Your task to perform on an android device: turn on the 24-hour format for clock Image 0: 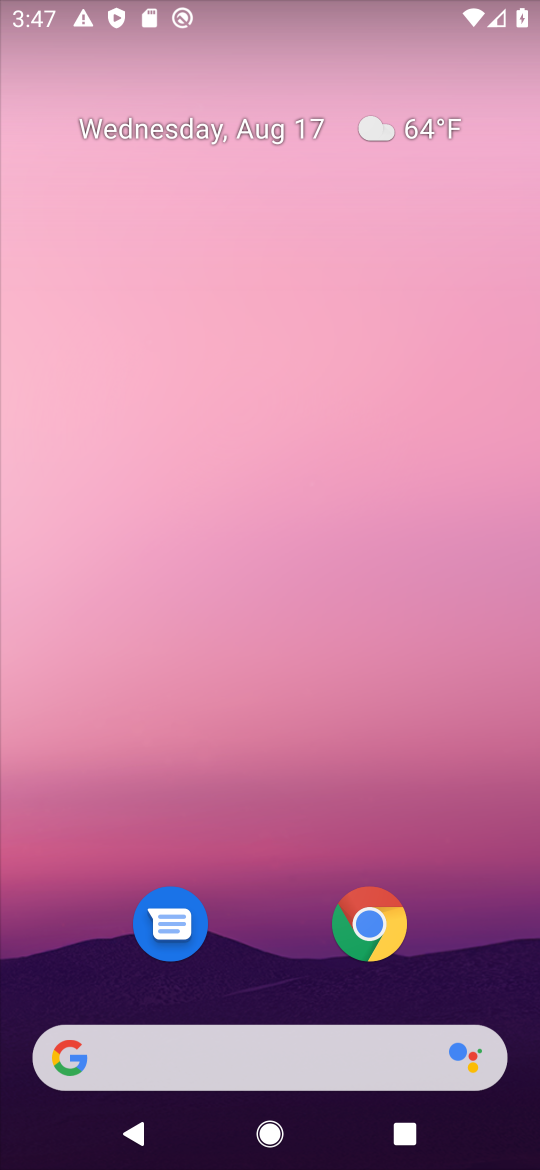
Step 0: drag from (248, 998) to (168, 195)
Your task to perform on an android device: turn on the 24-hour format for clock Image 1: 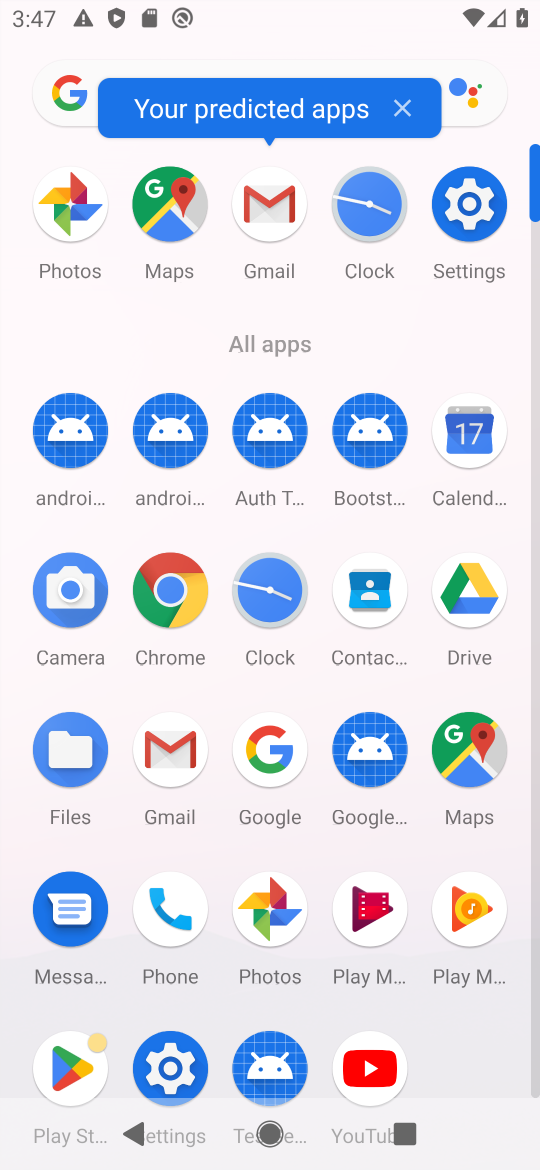
Step 1: click (277, 577)
Your task to perform on an android device: turn on the 24-hour format for clock Image 2: 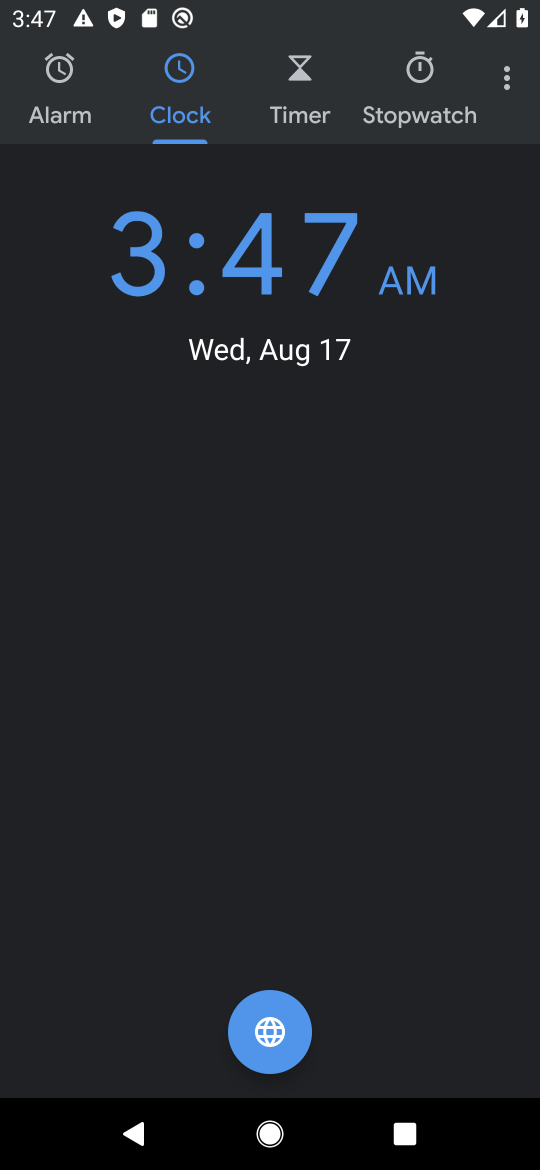
Step 2: click (500, 72)
Your task to perform on an android device: turn on the 24-hour format for clock Image 3: 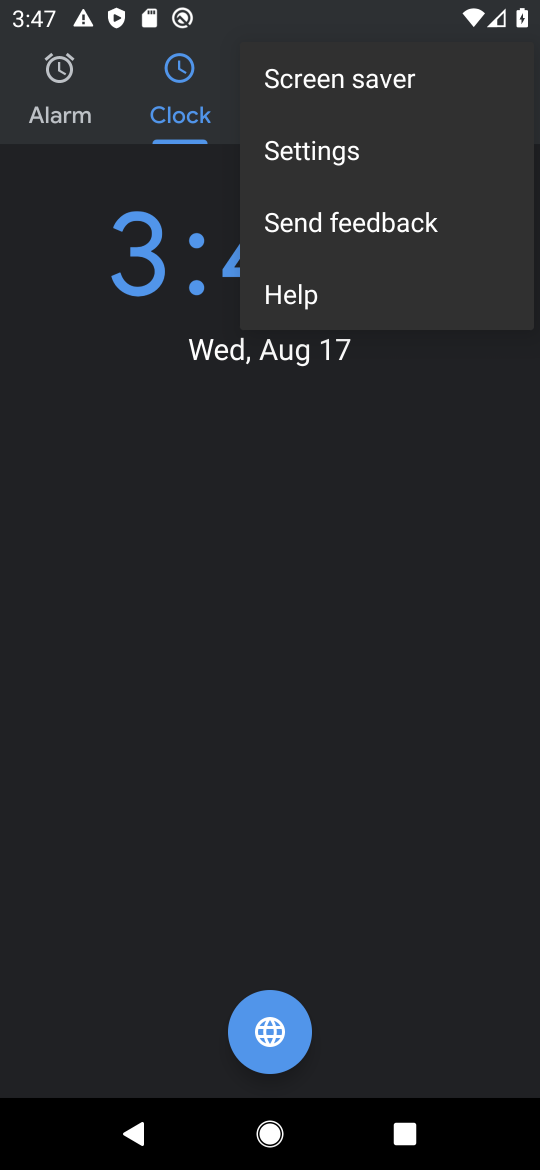
Step 3: click (325, 133)
Your task to perform on an android device: turn on the 24-hour format for clock Image 4: 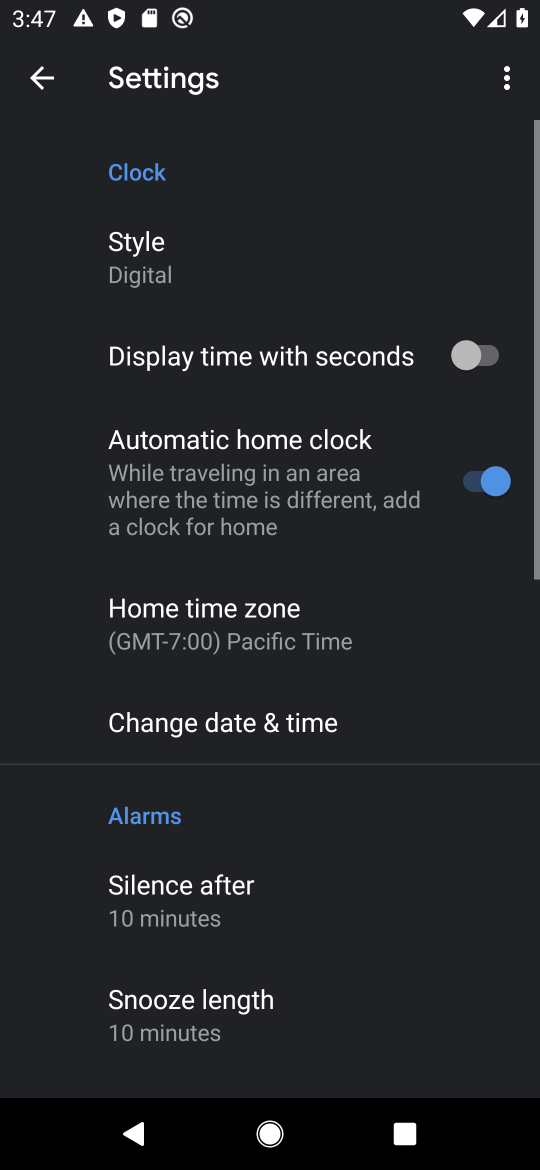
Step 4: click (284, 721)
Your task to perform on an android device: turn on the 24-hour format for clock Image 5: 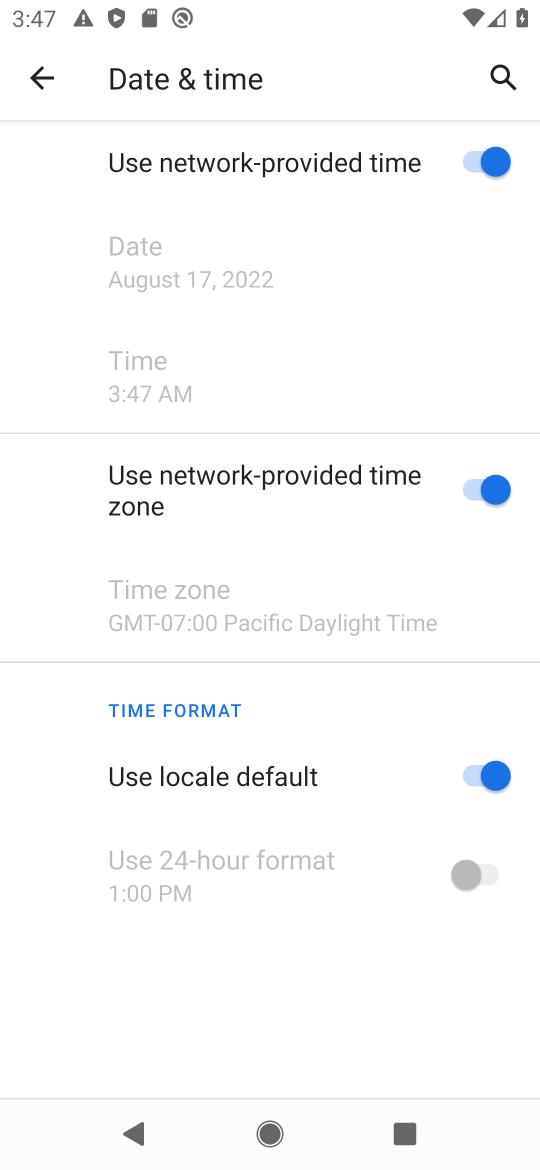
Step 5: click (489, 782)
Your task to perform on an android device: turn on the 24-hour format for clock Image 6: 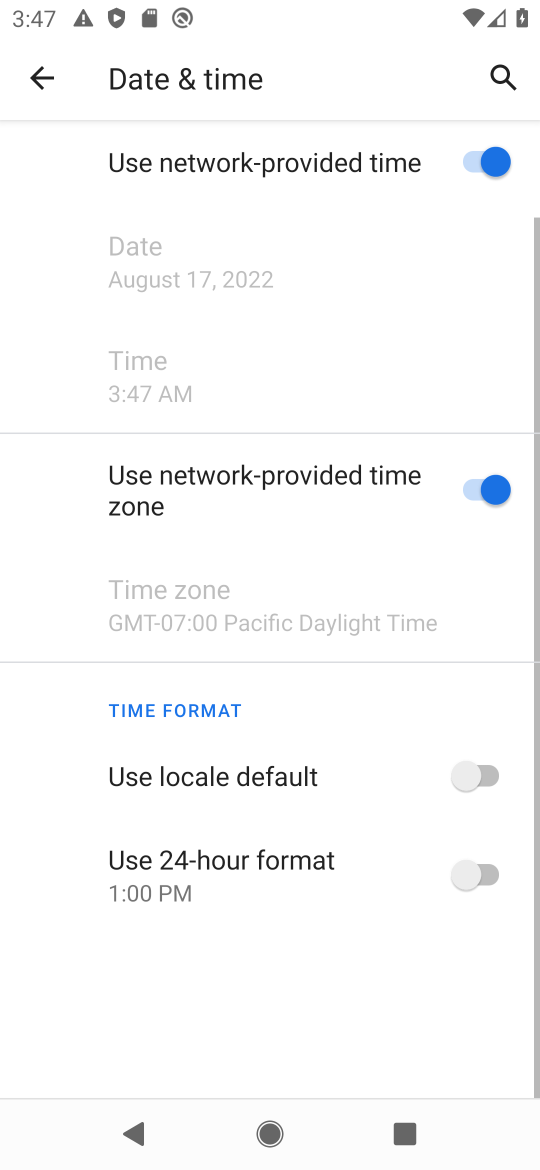
Step 6: click (478, 877)
Your task to perform on an android device: turn on the 24-hour format for clock Image 7: 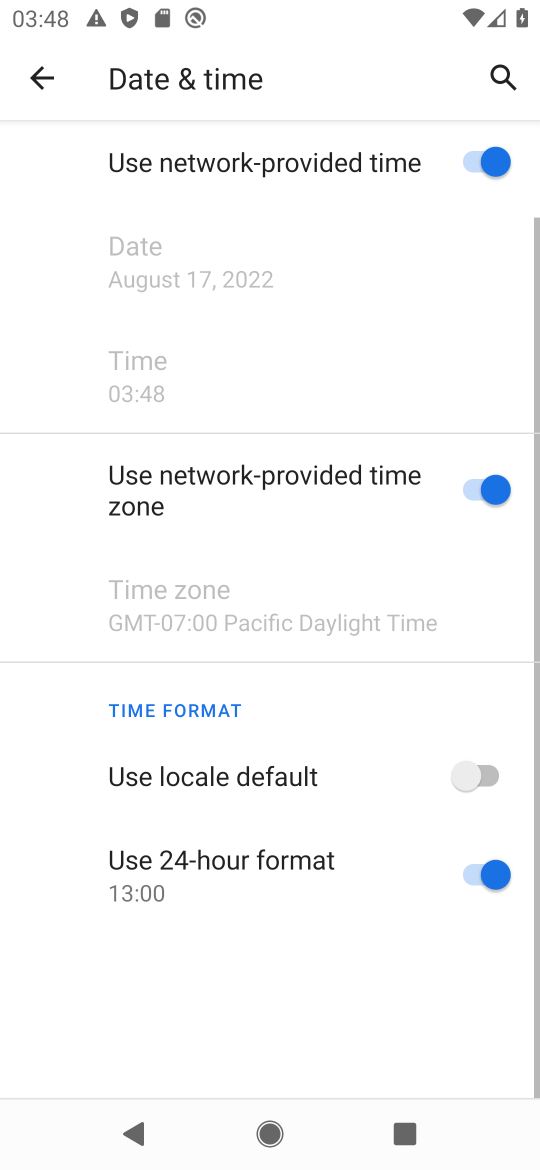
Step 7: task complete